Your task to perform on an android device: Open Android settings Image 0: 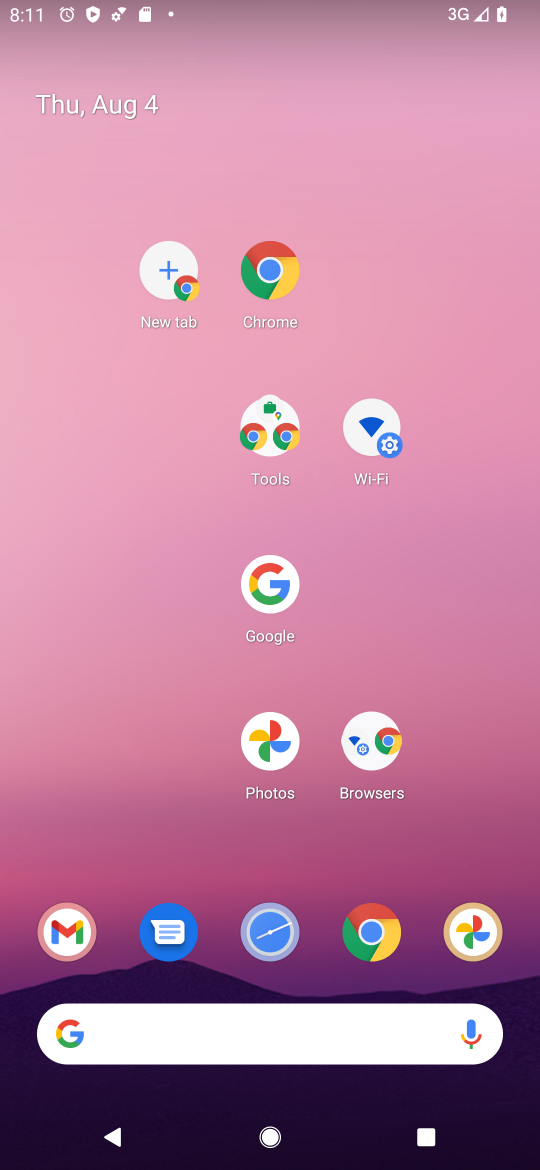
Step 0: click (331, 519)
Your task to perform on an android device: Open Android settings Image 1: 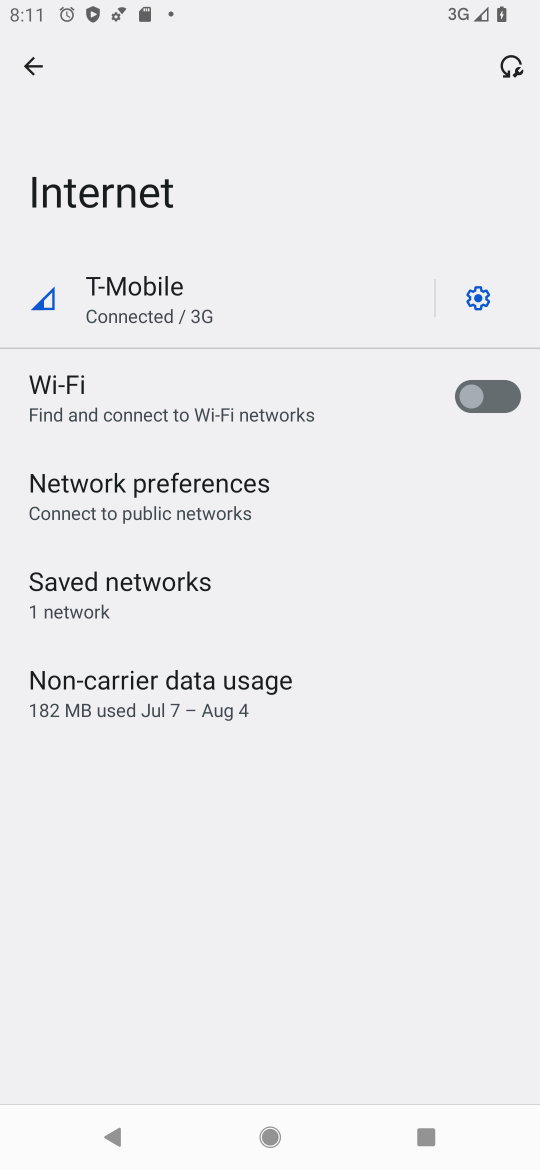
Step 1: click (19, 60)
Your task to perform on an android device: Open Android settings Image 2: 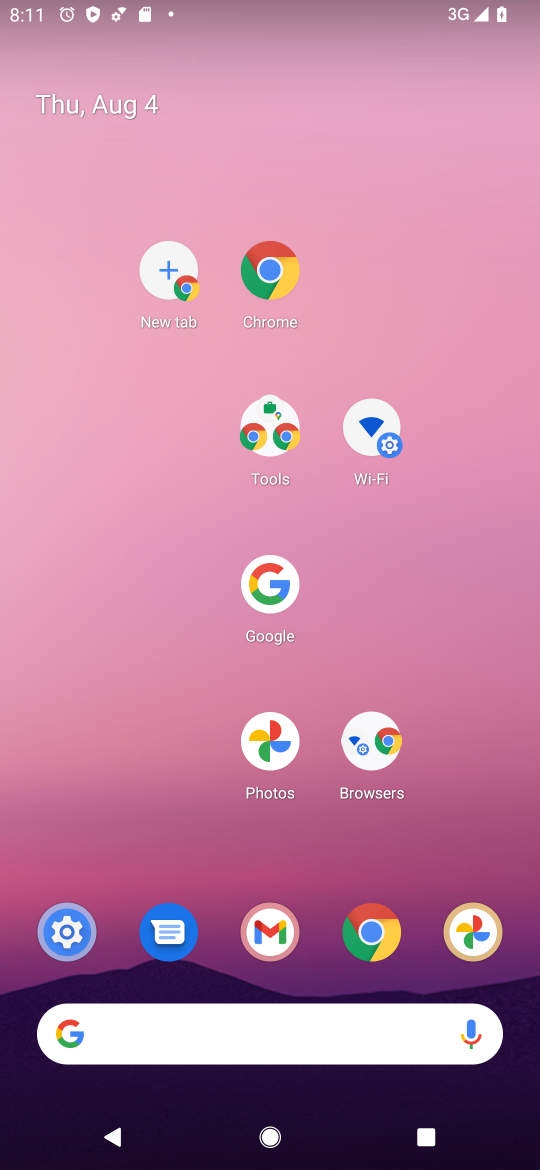
Step 2: drag from (229, 845) to (160, 418)
Your task to perform on an android device: Open Android settings Image 3: 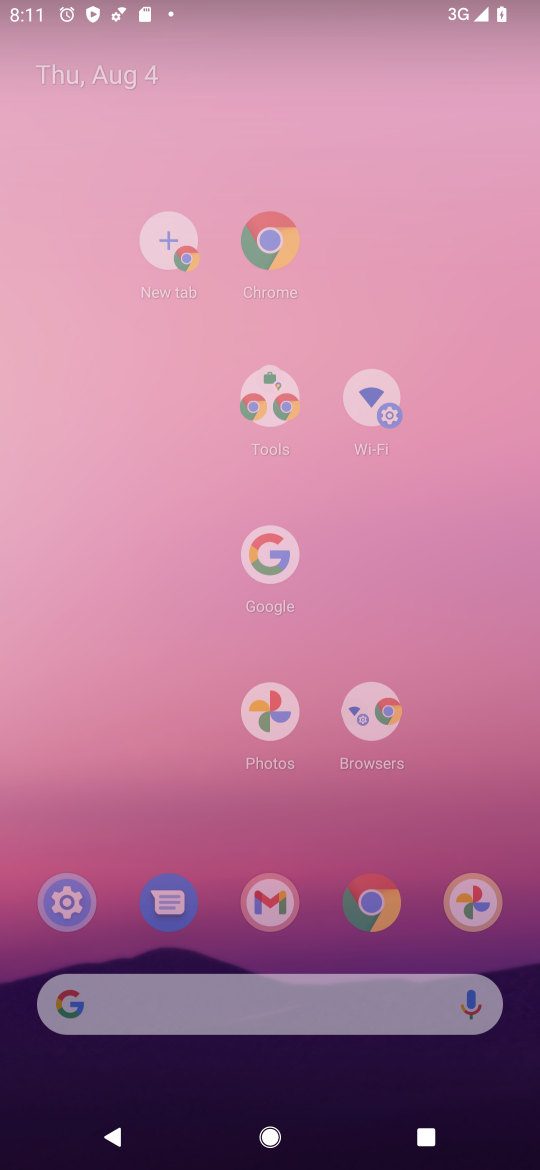
Step 3: click (212, 316)
Your task to perform on an android device: Open Android settings Image 4: 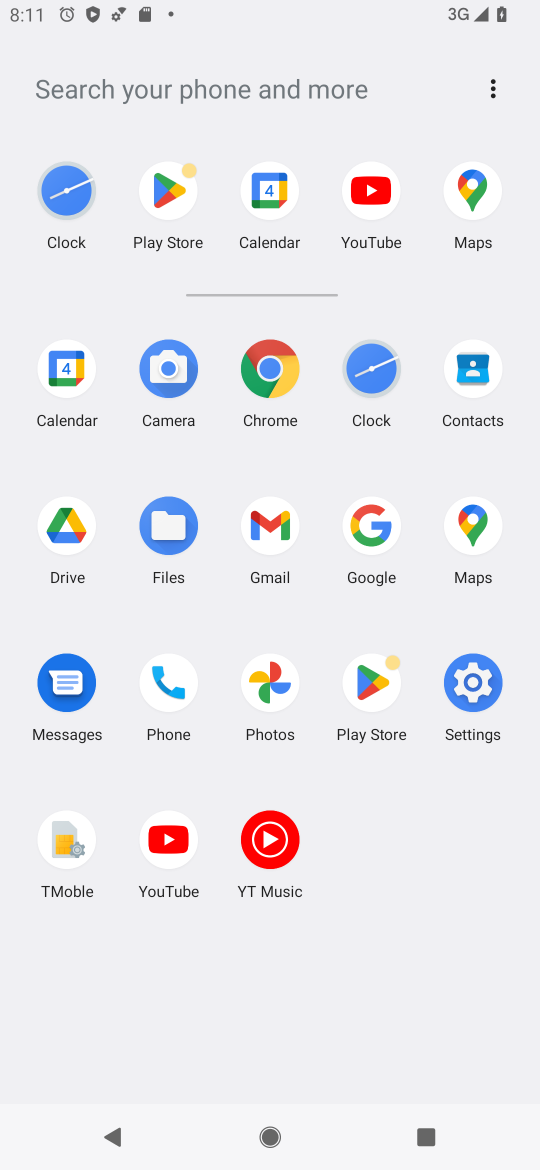
Step 4: drag from (308, 754) to (291, 276)
Your task to perform on an android device: Open Android settings Image 5: 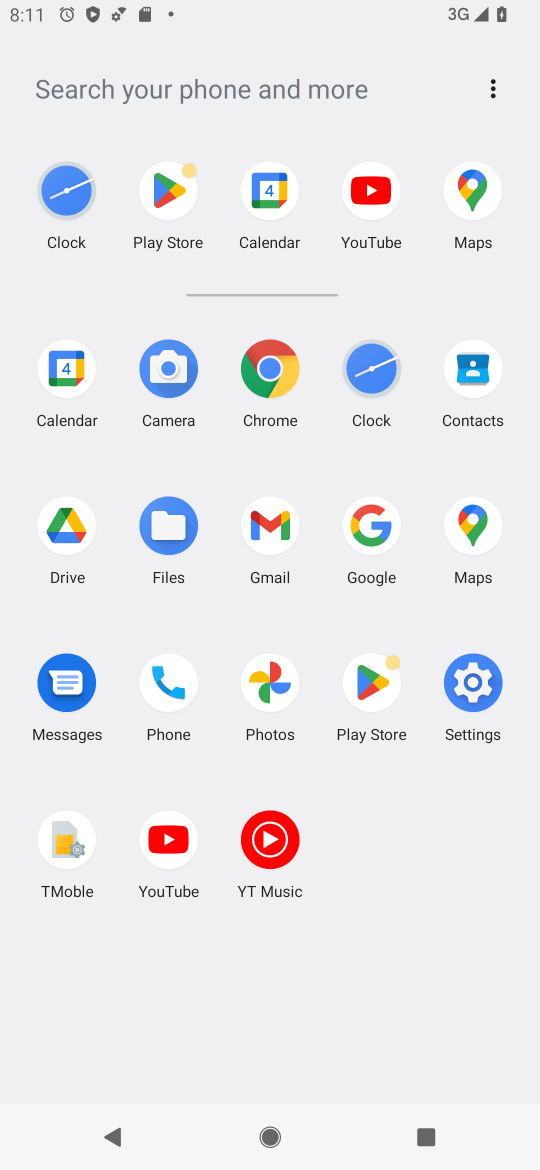
Step 5: click (468, 690)
Your task to perform on an android device: Open Android settings Image 6: 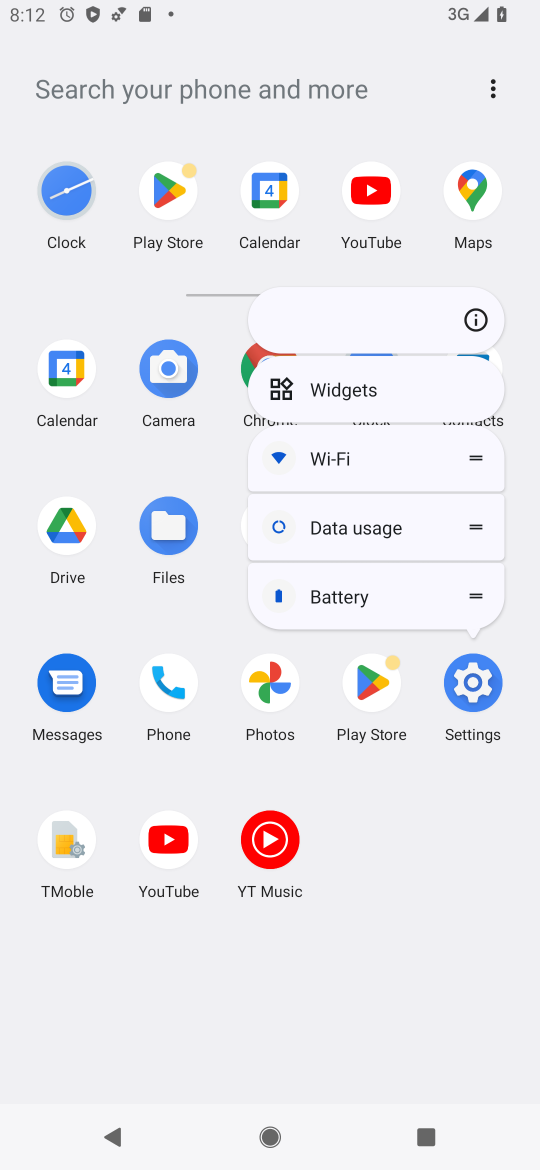
Step 6: click (465, 673)
Your task to perform on an android device: Open Android settings Image 7: 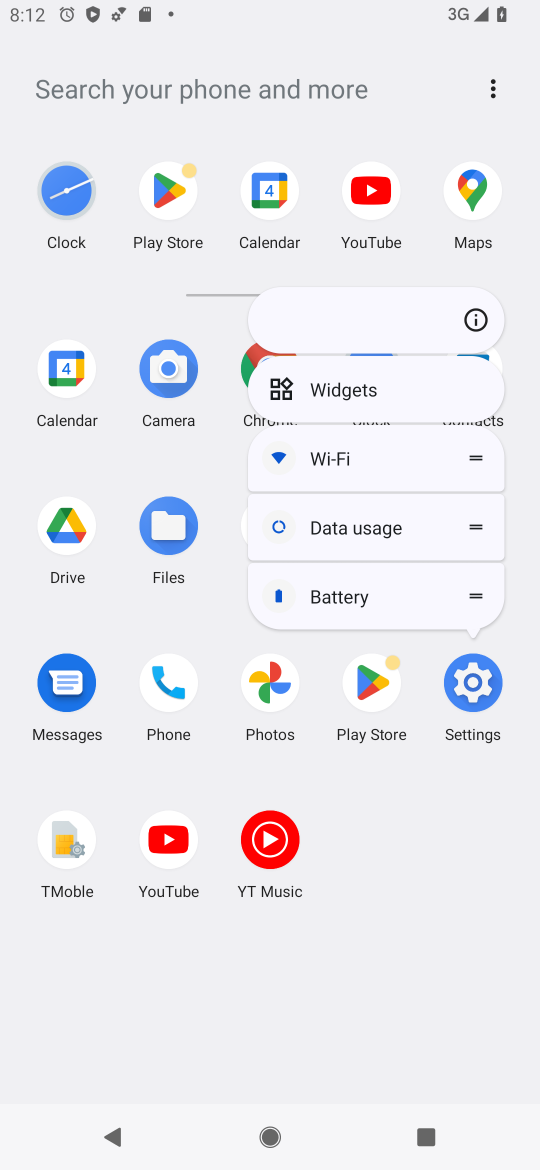
Step 7: click (468, 681)
Your task to perform on an android device: Open Android settings Image 8: 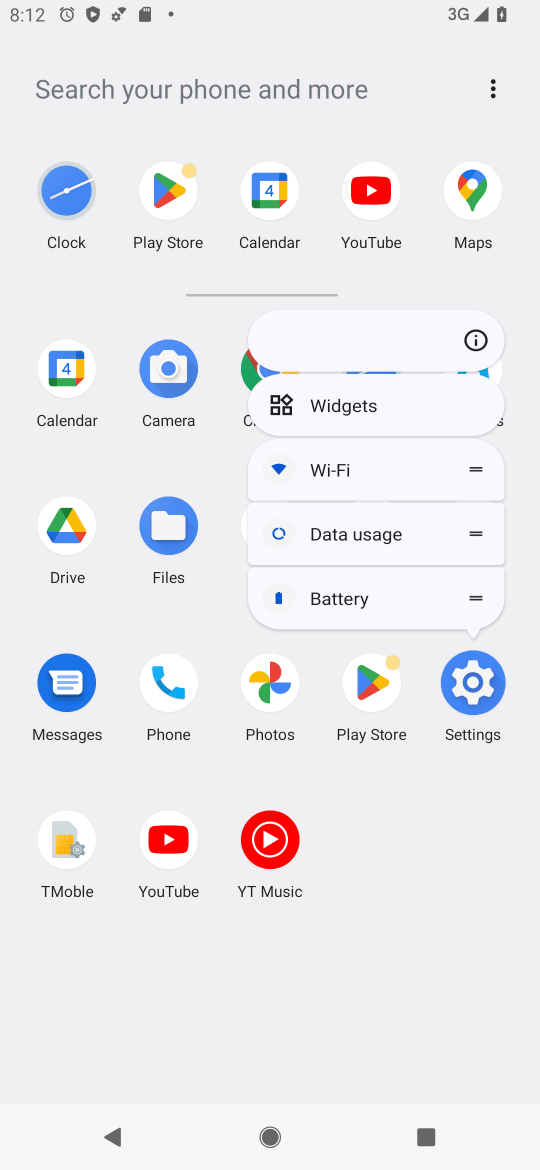
Step 8: click (471, 679)
Your task to perform on an android device: Open Android settings Image 9: 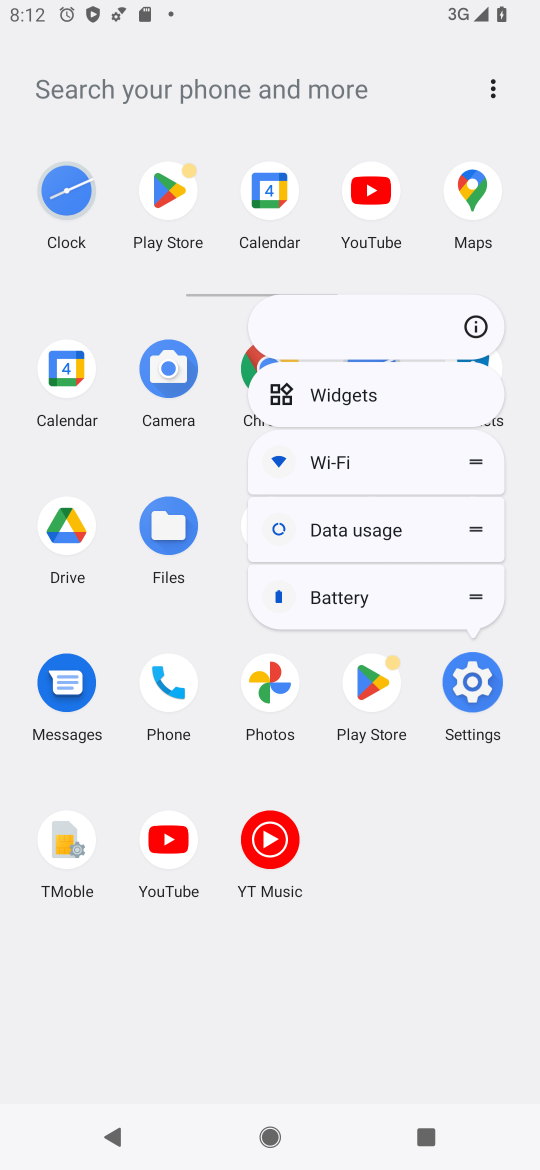
Step 9: click (469, 683)
Your task to perform on an android device: Open Android settings Image 10: 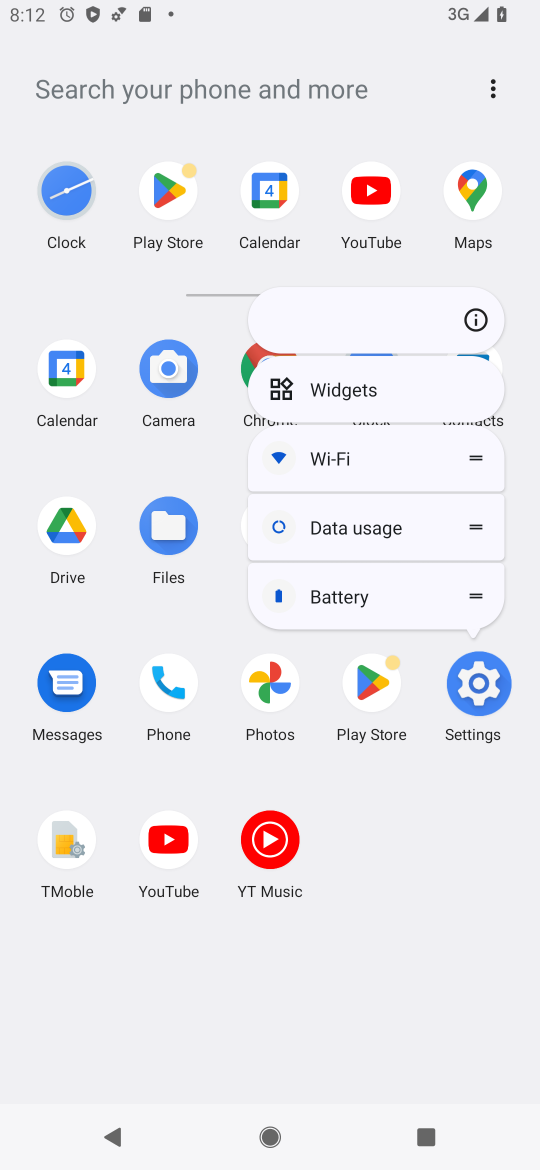
Step 10: click (475, 684)
Your task to perform on an android device: Open Android settings Image 11: 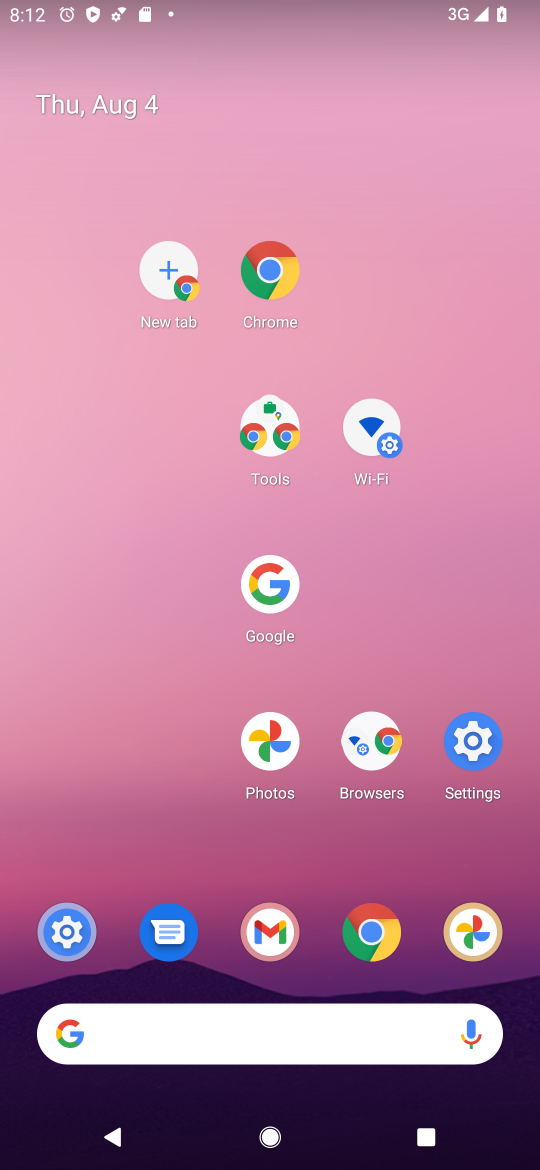
Step 11: click (442, 702)
Your task to perform on an android device: Open Android settings Image 12: 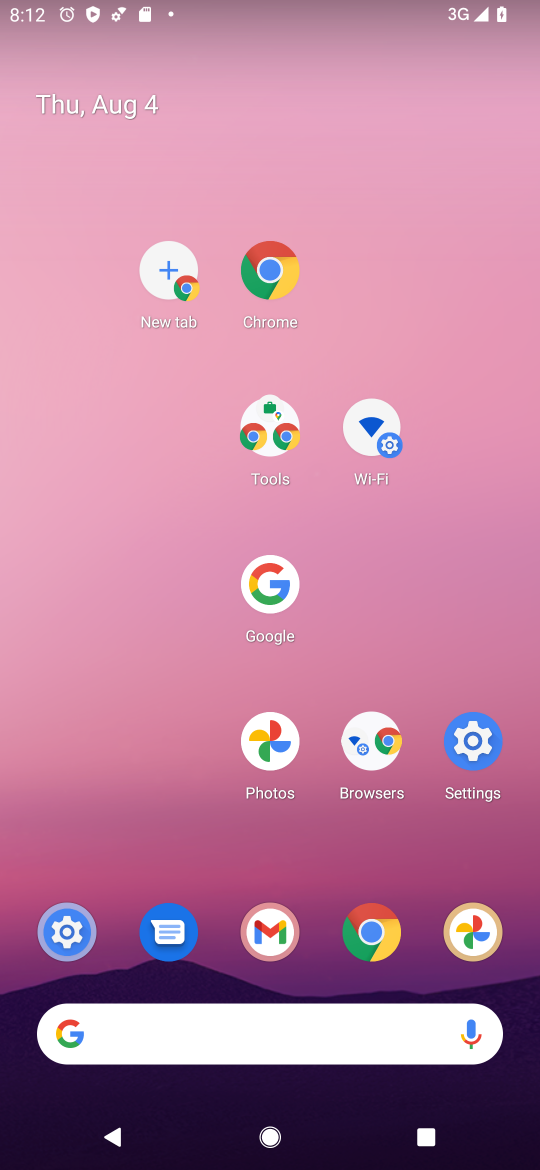
Step 12: click (442, 688)
Your task to perform on an android device: Open Android settings Image 13: 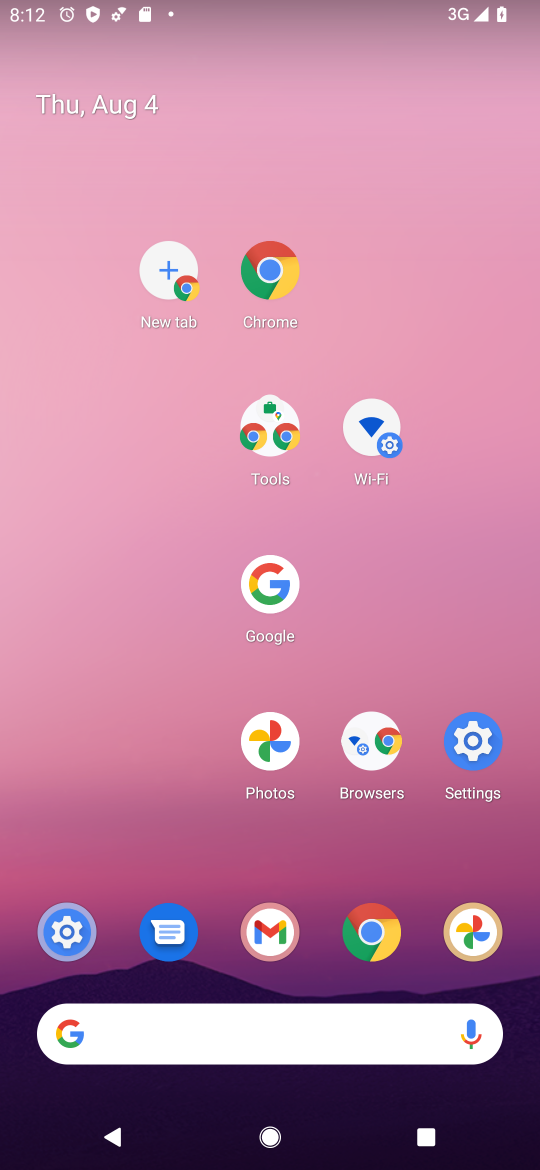
Step 13: drag from (327, 1059) to (139, 92)
Your task to perform on an android device: Open Android settings Image 14: 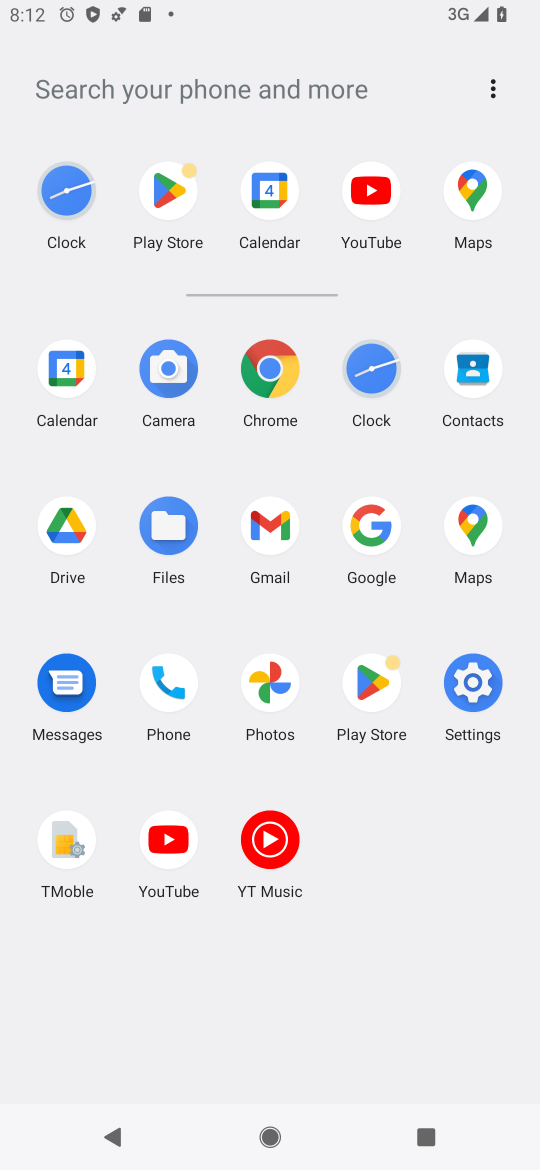
Step 14: click (477, 681)
Your task to perform on an android device: Open Android settings Image 15: 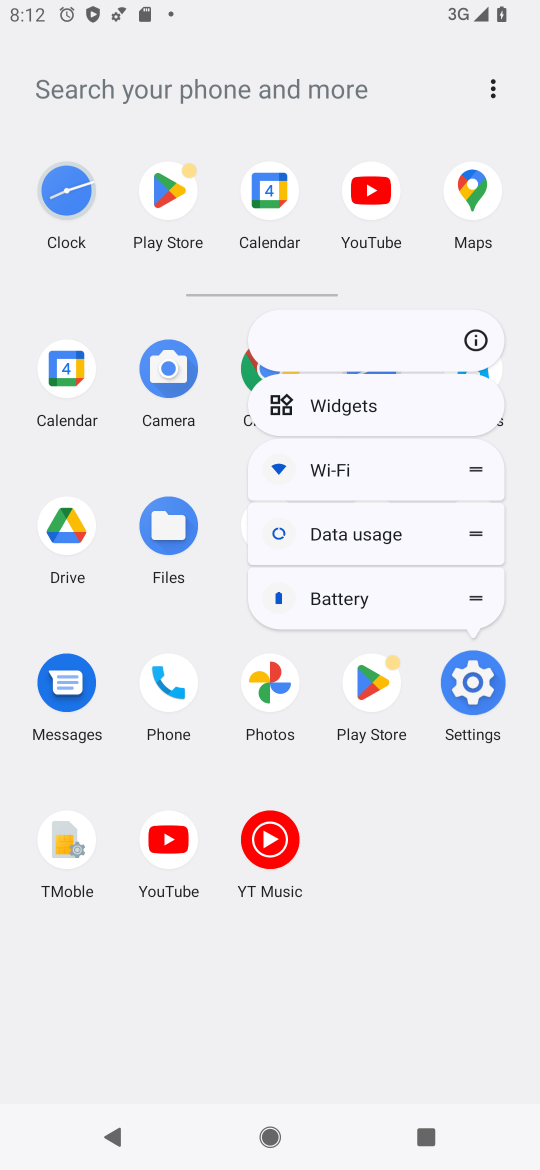
Step 15: click (477, 681)
Your task to perform on an android device: Open Android settings Image 16: 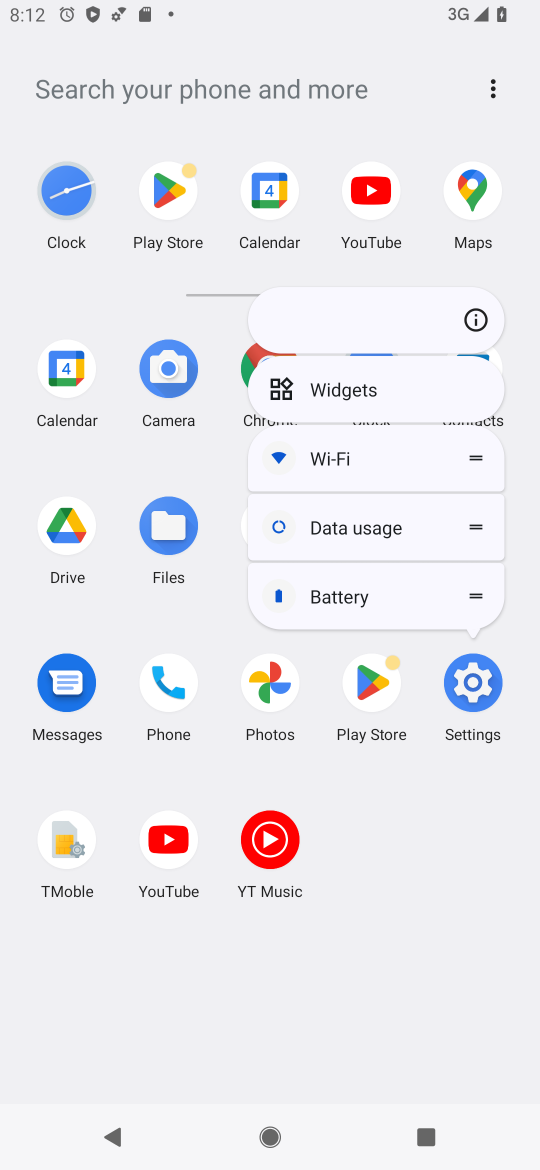
Step 16: click (477, 681)
Your task to perform on an android device: Open Android settings Image 17: 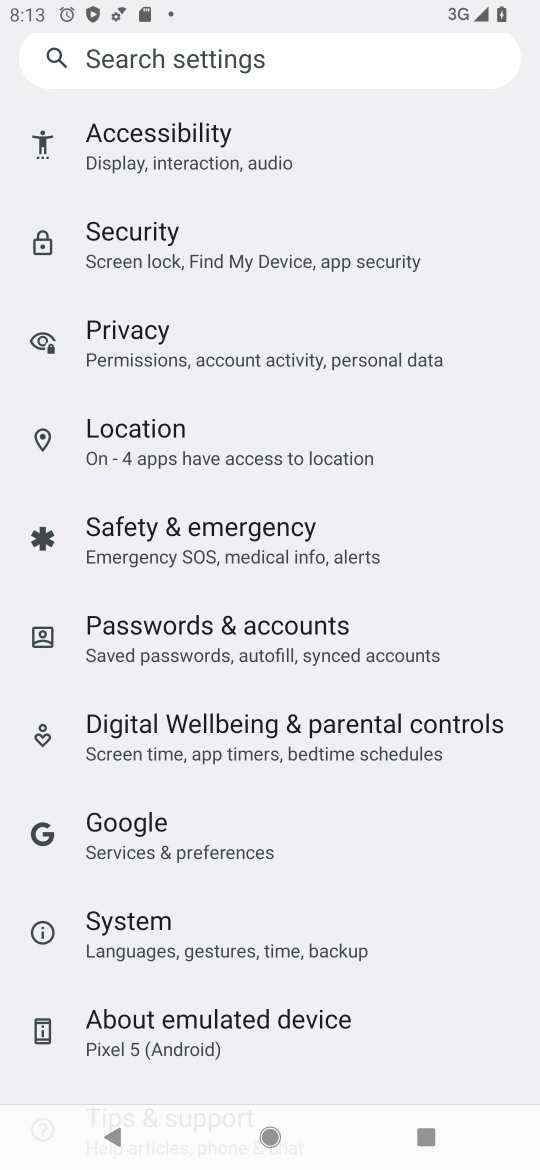
Step 17: click (173, 391)
Your task to perform on an android device: Open Android settings Image 18: 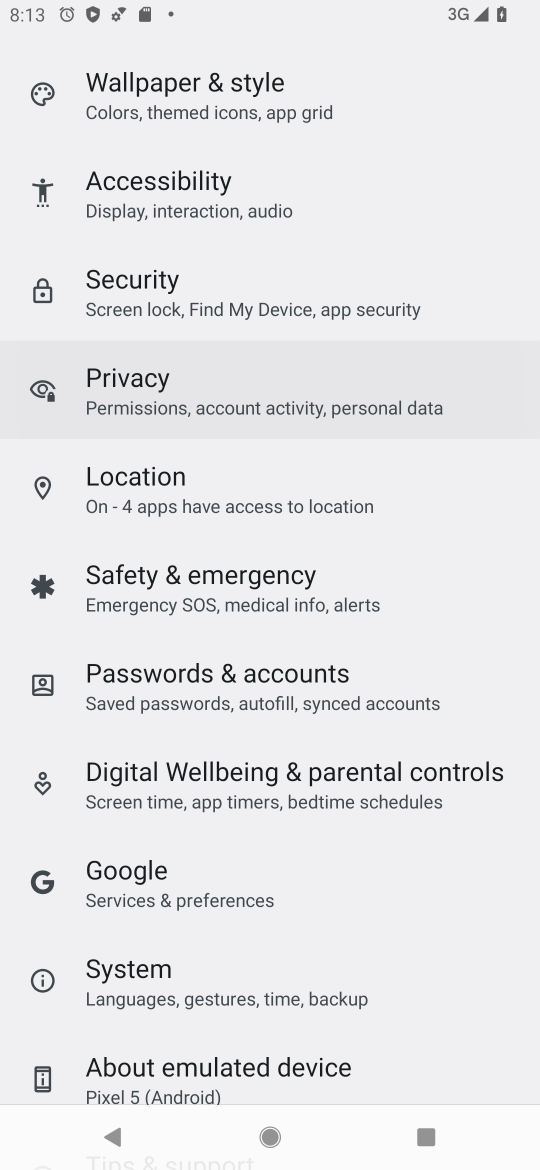
Step 18: drag from (169, 836) to (98, 462)
Your task to perform on an android device: Open Android settings Image 19: 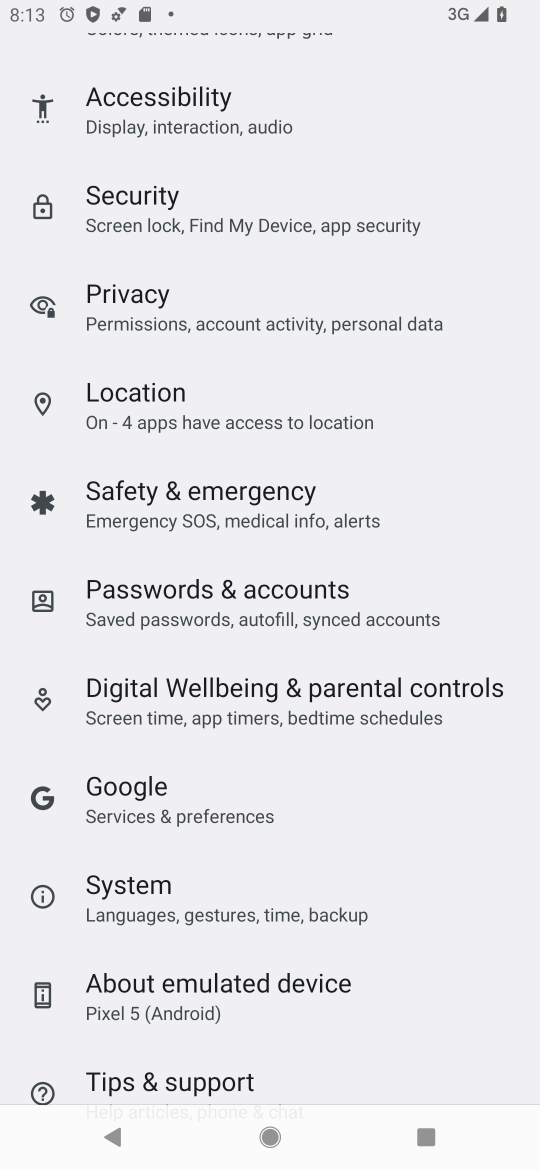
Step 19: drag from (245, 1022) to (223, 435)
Your task to perform on an android device: Open Android settings Image 20: 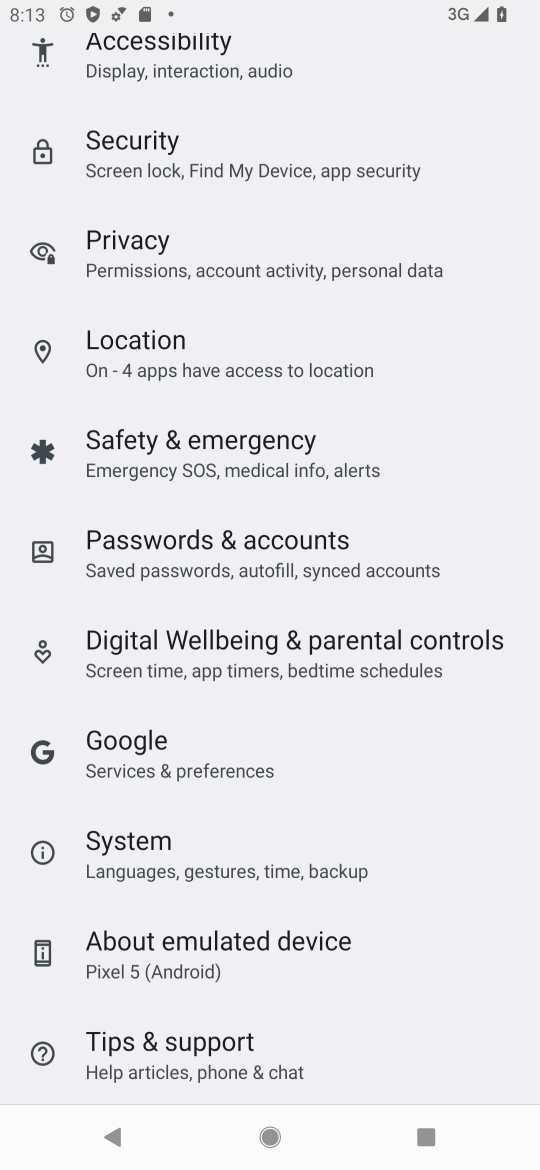
Step 20: drag from (221, 713) to (217, 441)
Your task to perform on an android device: Open Android settings Image 21: 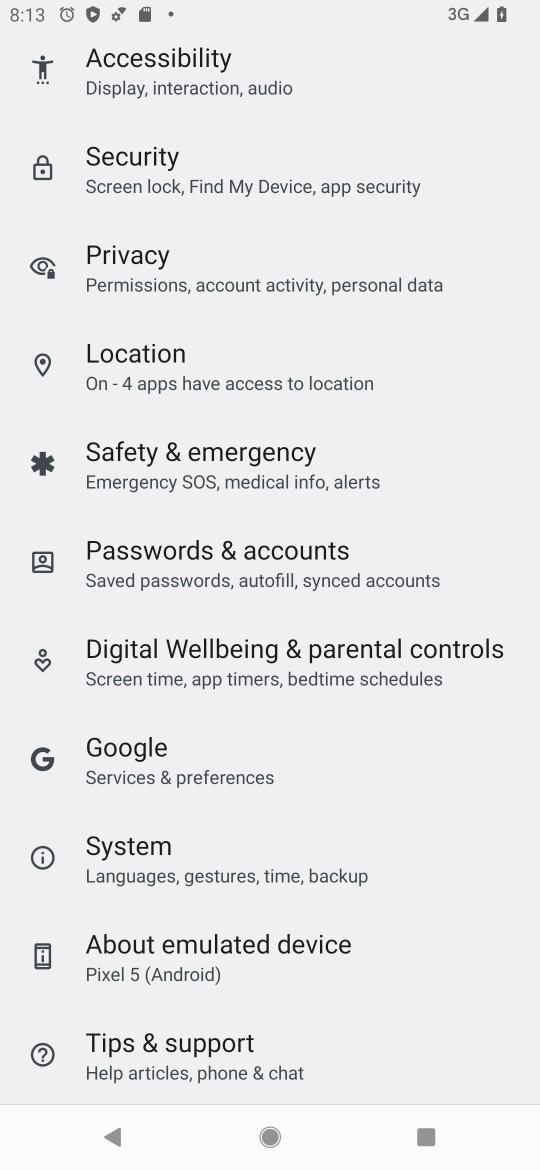
Step 21: drag from (195, 644) to (190, 368)
Your task to perform on an android device: Open Android settings Image 22: 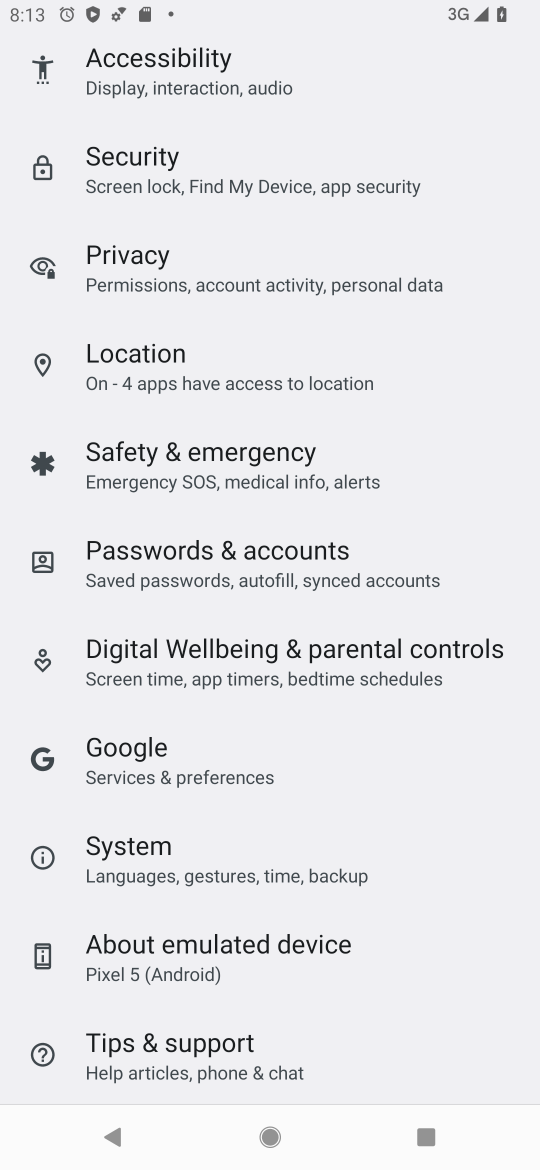
Step 22: drag from (280, 716) to (276, 286)
Your task to perform on an android device: Open Android settings Image 23: 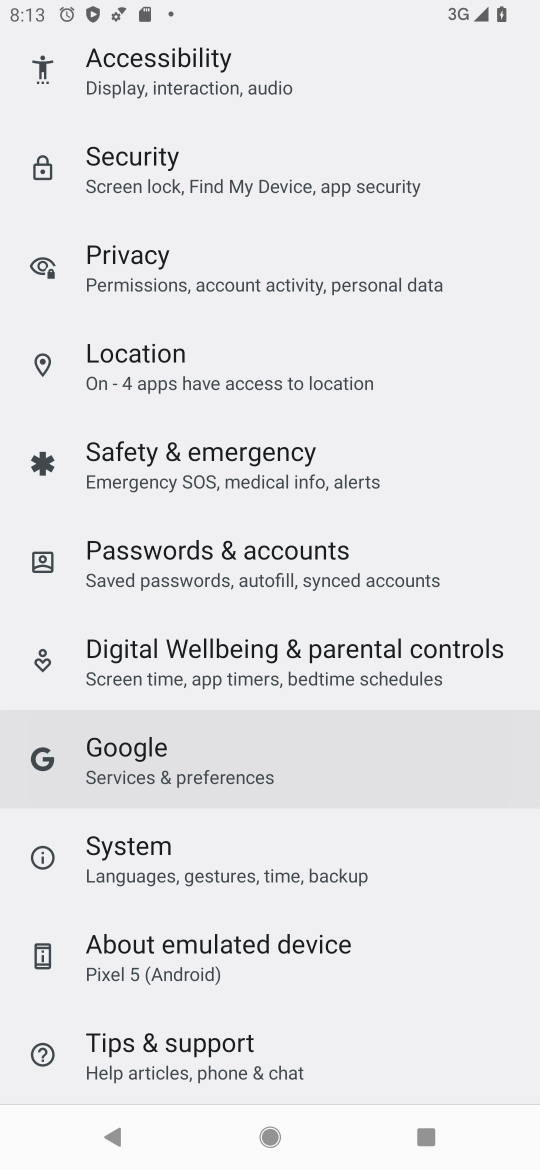
Step 23: click (181, 280)
Your task to perform on an android device: Open Android settings Image 24: 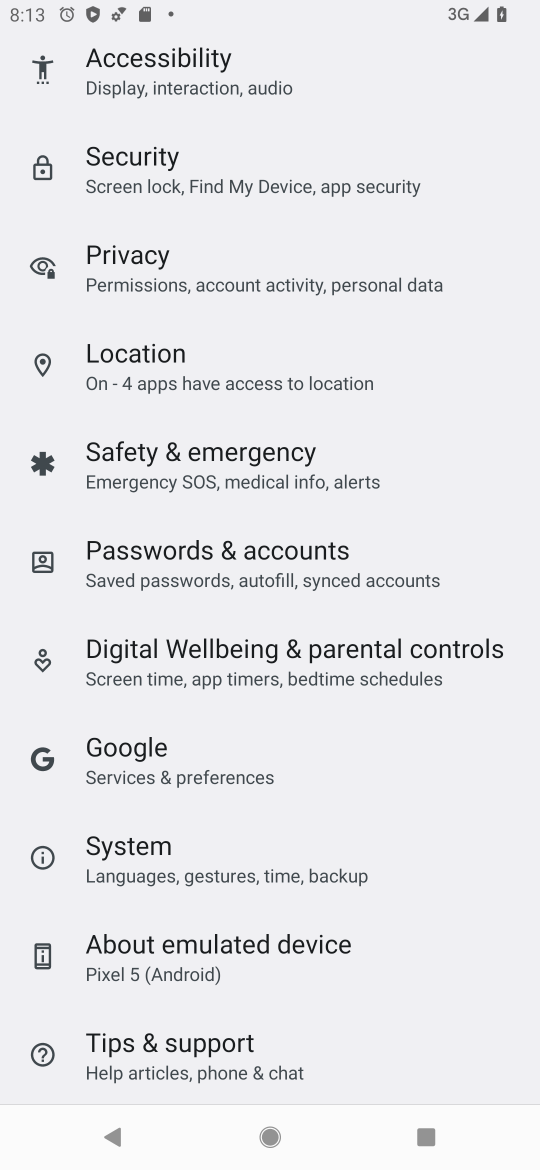
Step 24: task complete